Your task to perform on an android device: Go to battery settings Image 0: 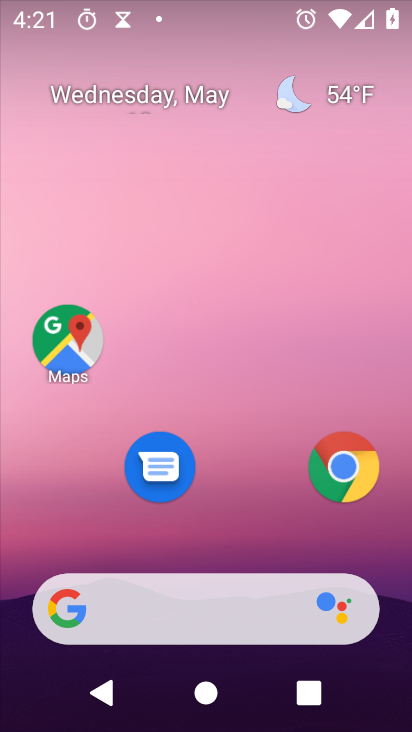
Step 0: drag from (263, 532) to (232, 106)
Your task to perform on an android device: Go to battery settings Image 1: 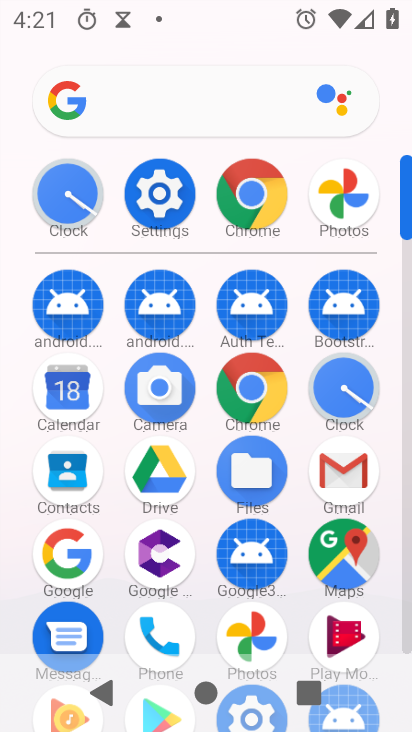
Step 1: click (163, 172)
Your task to perform on an android device: Go to battery settings Image 2: 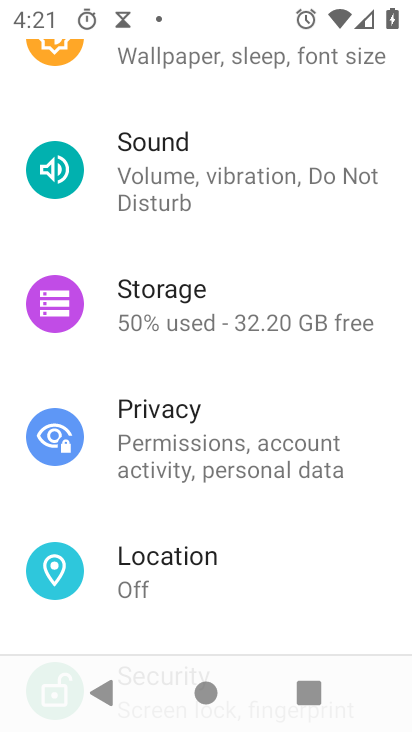
Step 2: drag from (245, 179) to (283, 635)
Your task to perform on an android device: Go to battery settings Image 3: 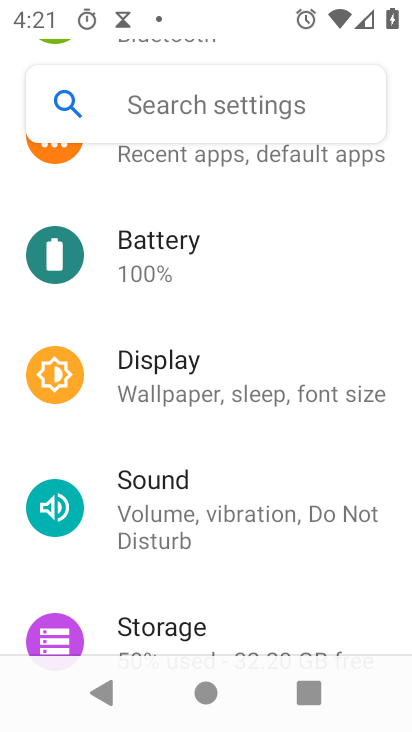
Step 3: click (265, 263)
Your task to perform on an android device: Go to battery settings Image 4: 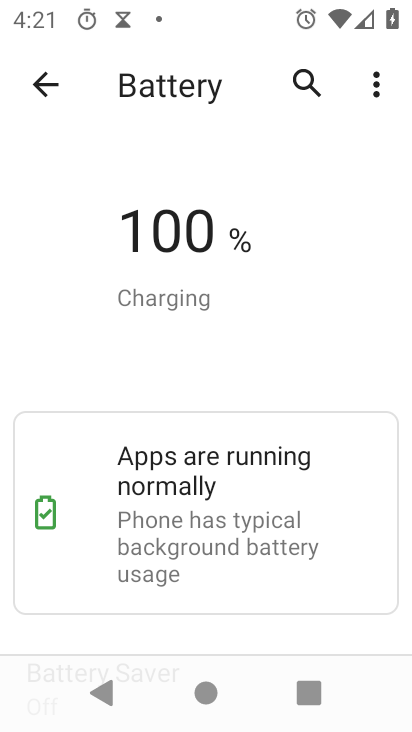
Step 4: task complete